Your task to perform on an android device: set the timer Image 0: 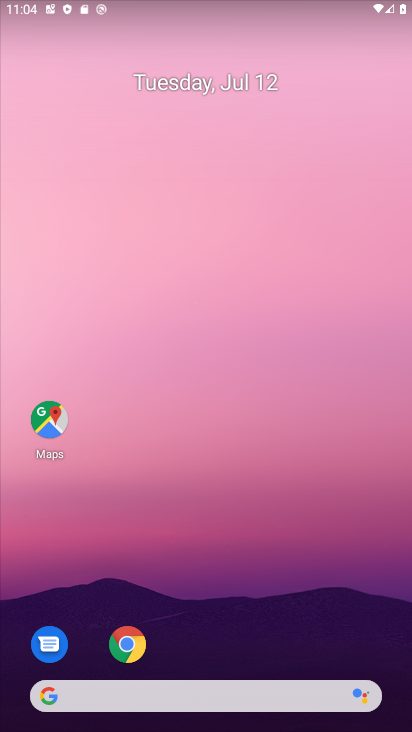
Step 0: drag from (232, 661) to (194, 0)
Your task to perform on an android device: set the timer Image 1: 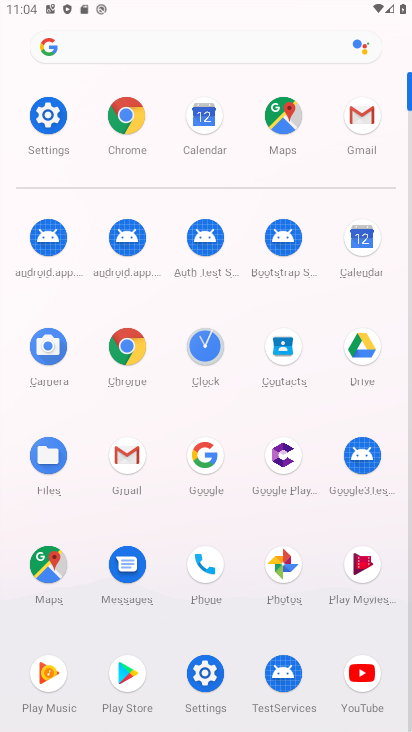
Step 1: click (202, 335)
Your task to perform on an android device: set the timer Image 2: 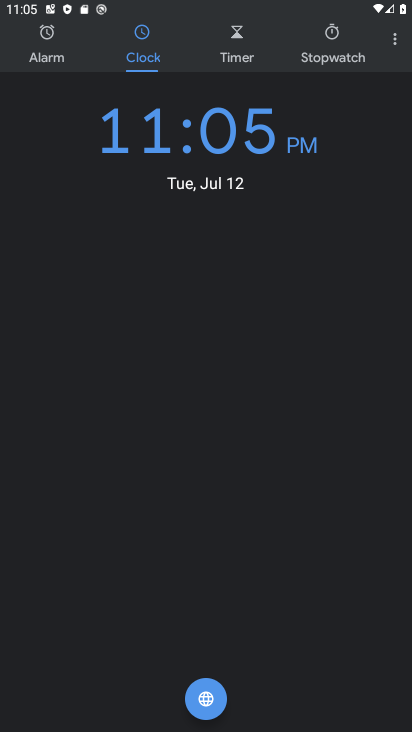
Step 2: click (392, 32)
Your task to perform on an android device: set the timer Image 3: 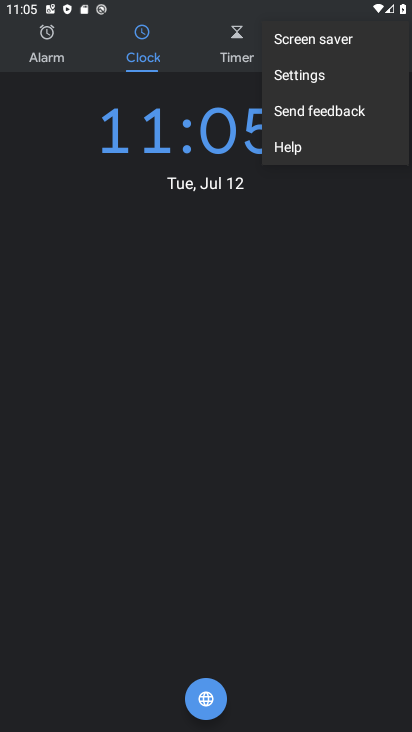
Step 3: click (246, 53)
Your task to perform on an android device: set the timer Image 4: 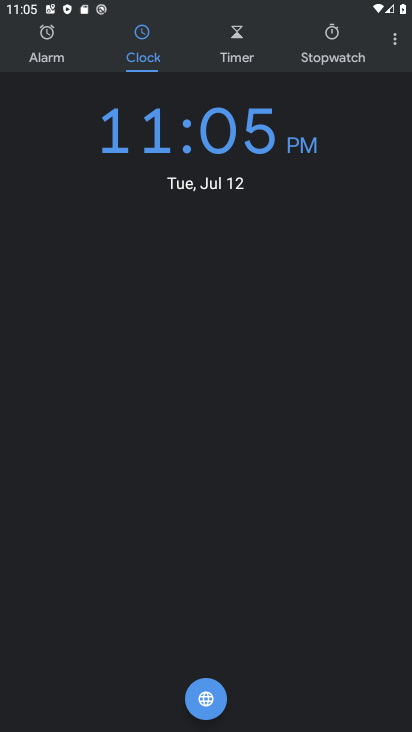
Step 4: click (241, 48)
Your task to perform on an android device: set the timer Image 5: 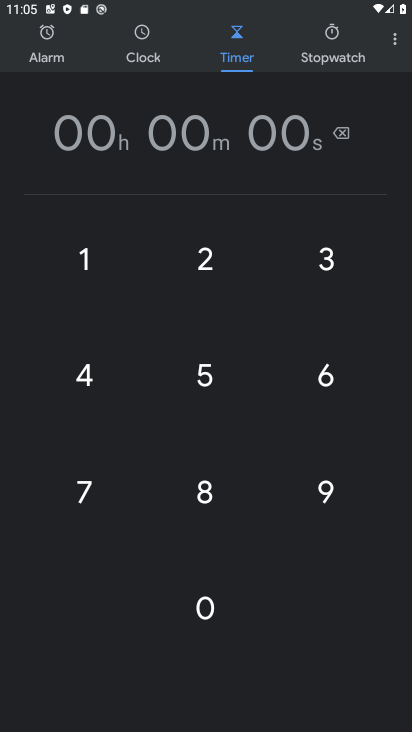
Step 5: click (197, 249)
Your task to perform on an android device: set the timer Image 6: 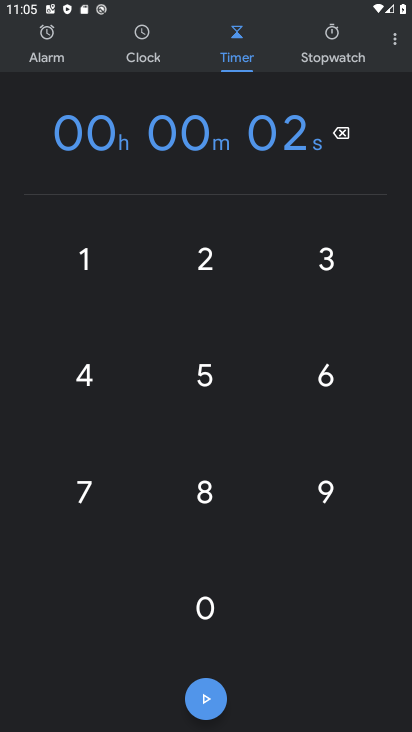
Step 6: click (205, 604)
Your task to perform on an android device: set the timer Image 7: 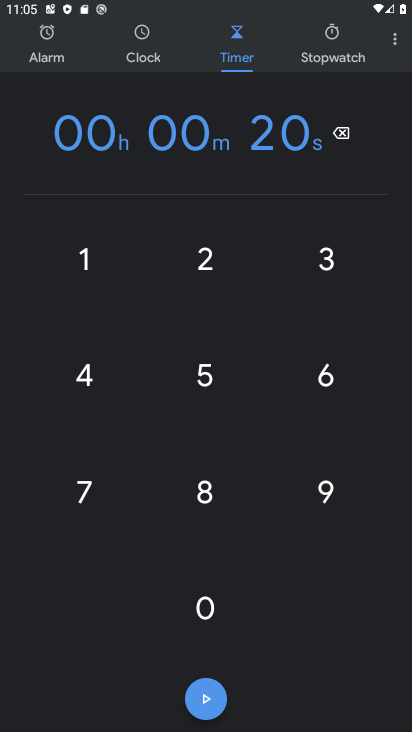
Step 7: click (205, 604)
Your task to perform on an android device: set the timer Image 8: 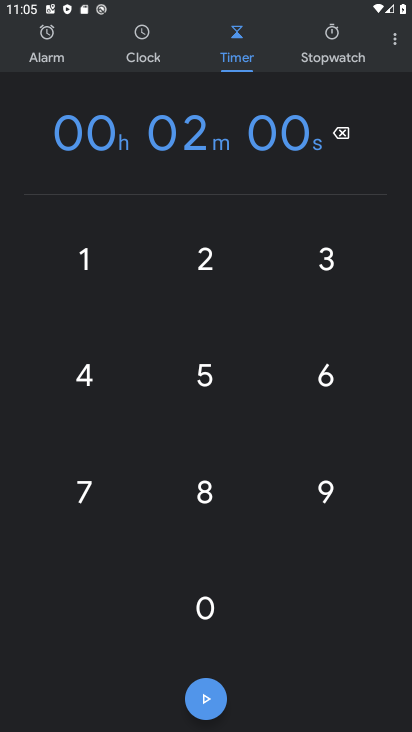
Step 8: click (205, 604)
Your task to perform on an android device: set the timer Image 9: 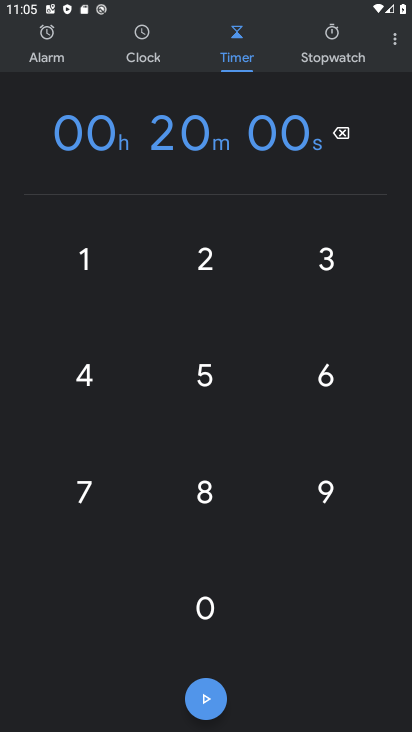
Step 9: click (203, 695)
Your task to perform on an android device: set the timer Image 10: 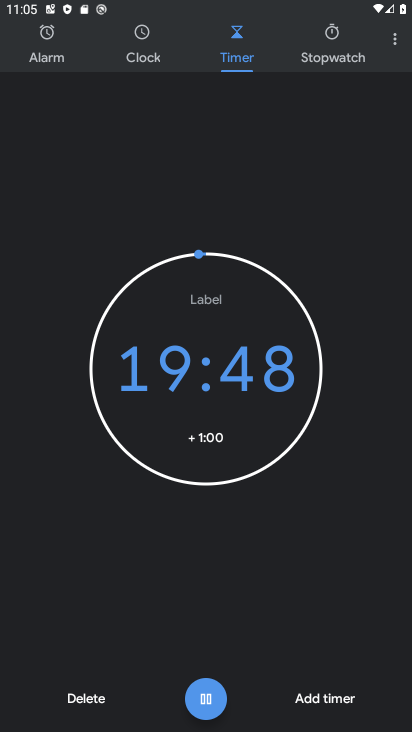
Step 10: click (190, 440)
Your task to perform on an android device: set the timer Image 11: 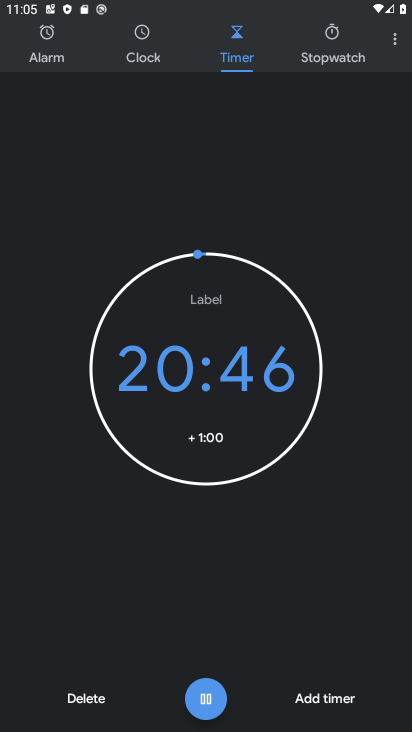
Step 11: task complete